Your task to perform on an android device: toggle notification dots Image 0: 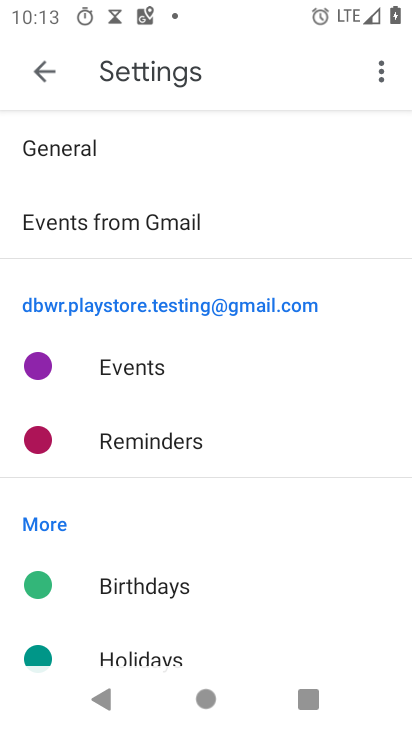
Step 0: press home button
Your task to perform on an android device: toggle notification dots Image 1: 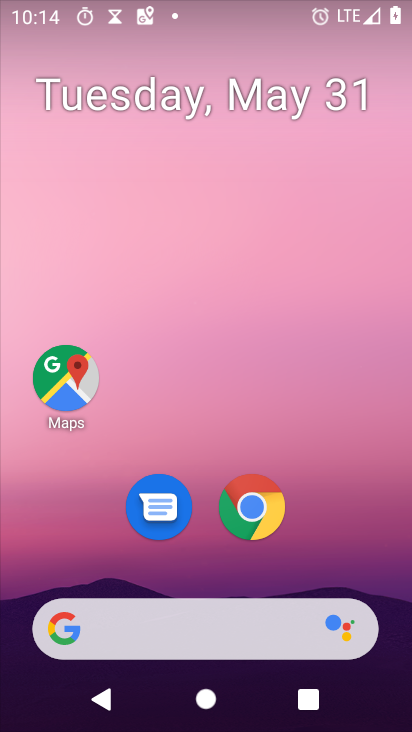
Step 1: click (249, 514)
Your task to perform on an android device: toggle notification dots Image 2: 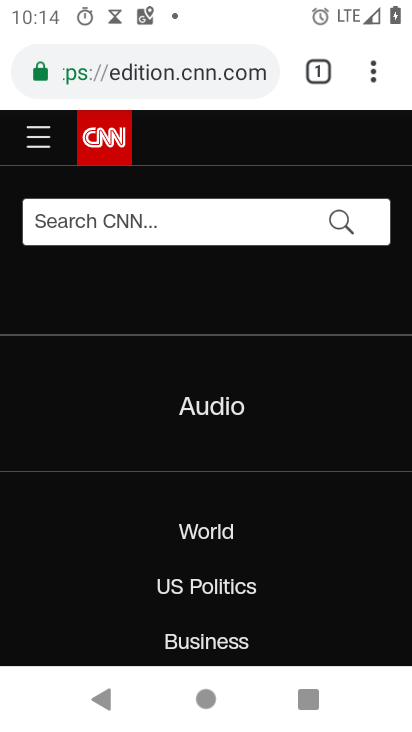
Step 2: press home button
Your task to perform on an android device: toggle notification dots Image 3: 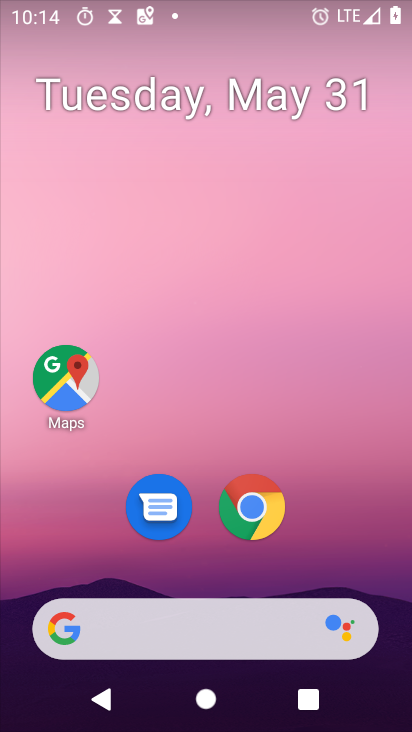
Step 3: drag from (54, 453) to (180, 161)
Your task to perform on an android device: toggle notification dots Image 4: 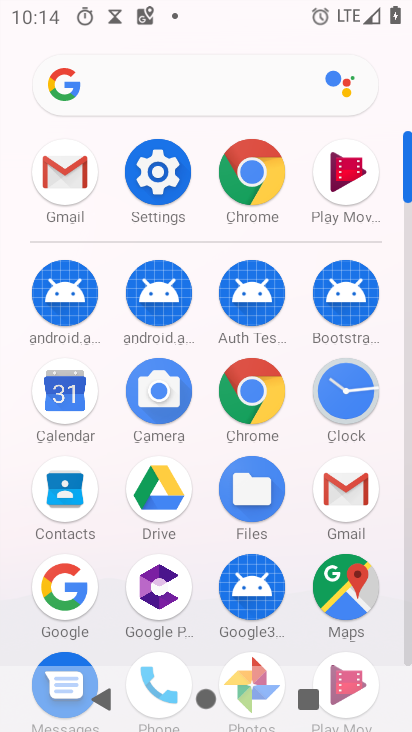
Step 4: click (142, 160)
Your task to perform on an android device: toggle notification dots Image 5: 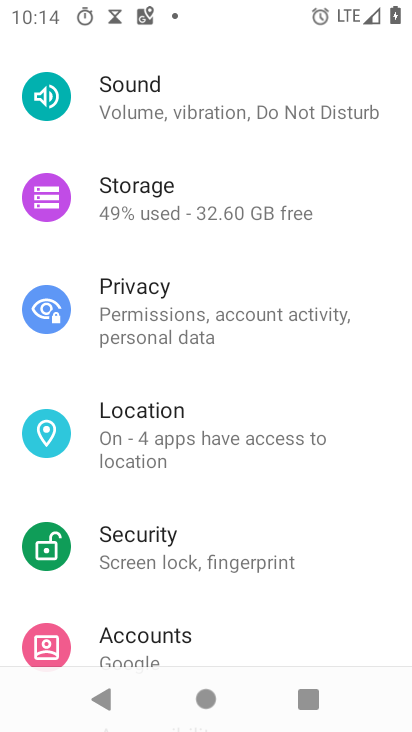
Step 5: drag from (51, 166) to (56, 615)
Your task to perform on an android device: toggle notification dots Image 6: 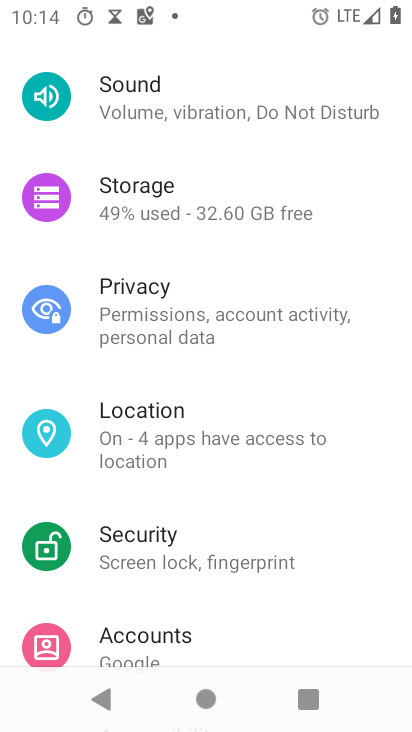
Step 6: drag from (306, 83) to (243, 514)
Your task to perform on an android device: toggle notification dots Image 7: 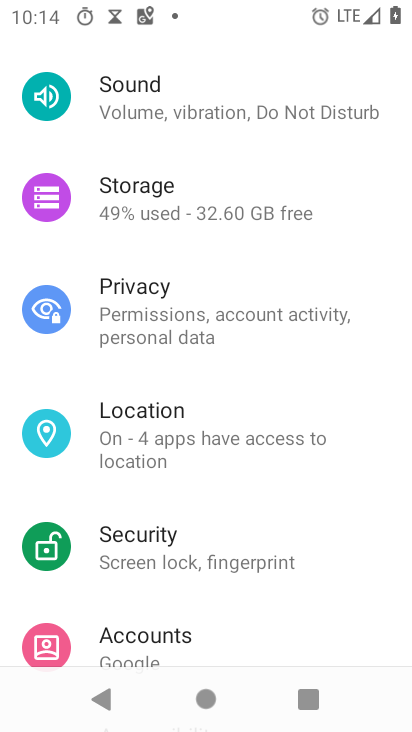
Step 7: drag from (229, 89) to (261, 419)
Your task to perform on an android device: toggle notification dots Image 8: 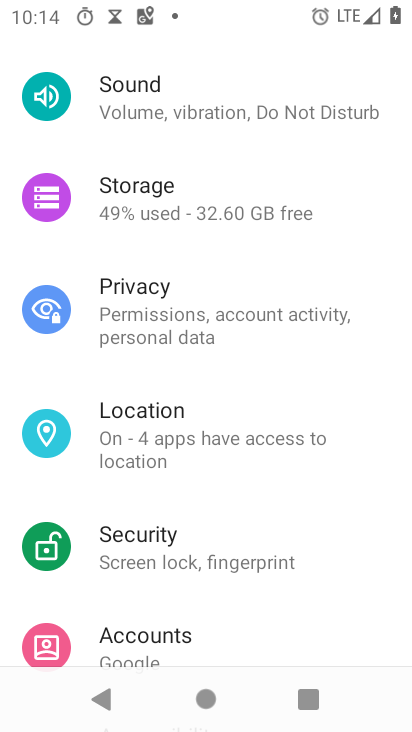
Step 8: drag from (53, 77) to (112, 418)
Your task to perform on an android device: toggle notification dots Image 9: 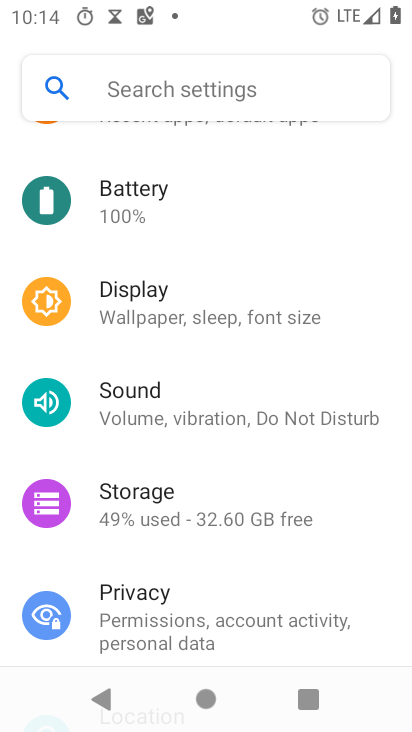
Step 9: drag from (178, 162) to (255, 485)
Your task to perform on an android device: toggle notification dots Image 10: 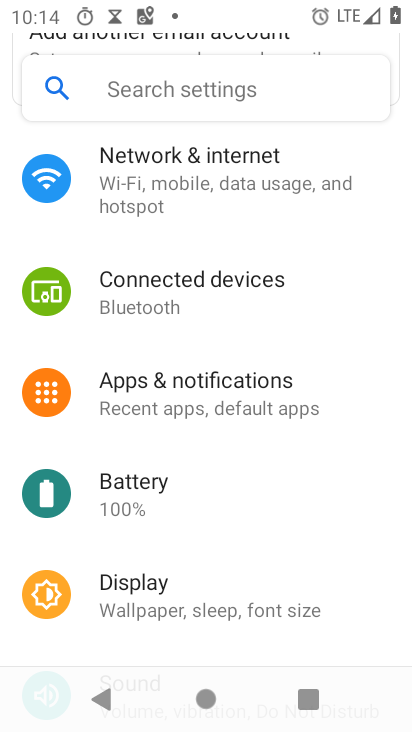
Step 10: click (189, 386)
Your task to perform on an android device: toggle notification dots Image 11: 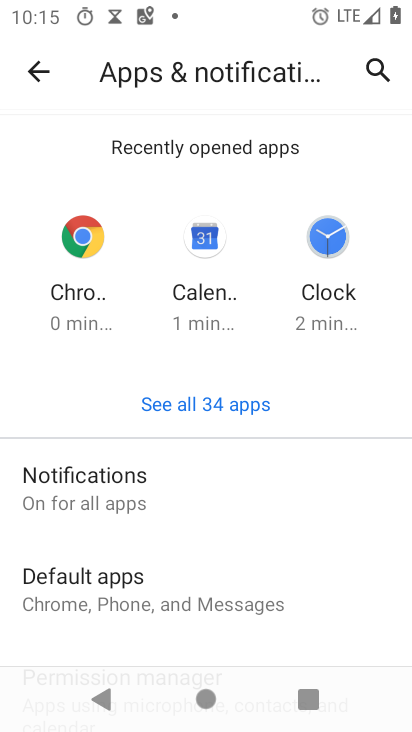
Step 11: click (80, 494)
Your task to perform on an android device: toggle notification dots Image 12: 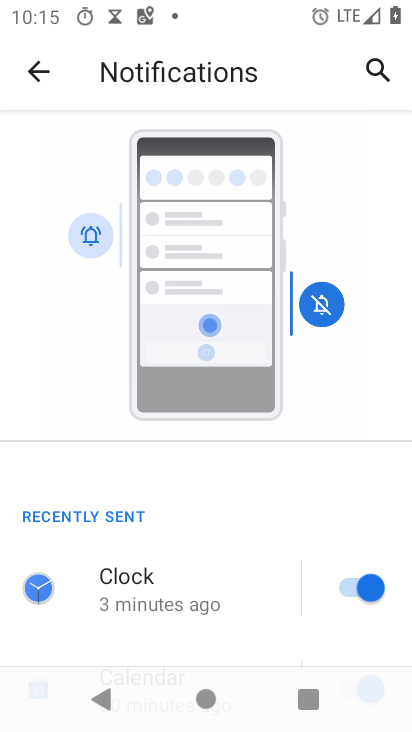
Step 12: drag from (24, 541) to (157, 74)
Your task to perform on an android device: toggle notification dots Image 13: 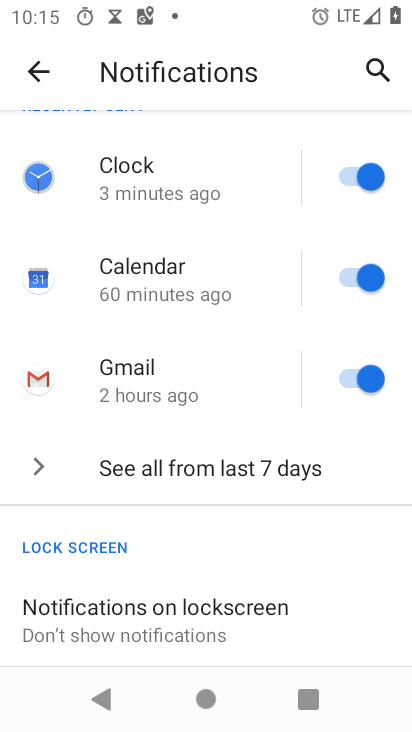
Step 13: drag from (18, 510) to (156, 150)
Your task to perform on an android device: toggle notification dots Image 14: 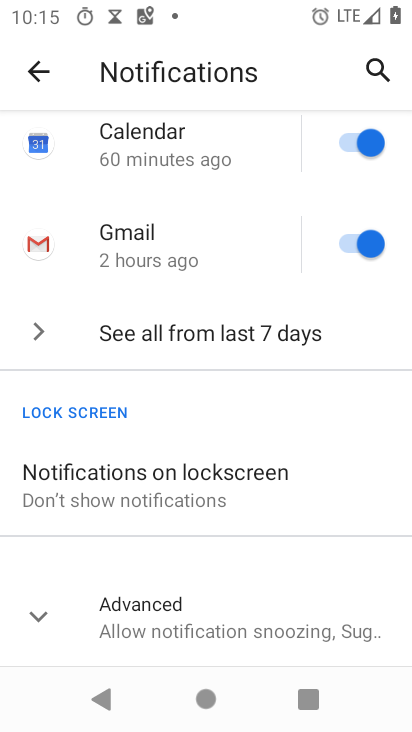
Step 14: click (113, 619)
Your task to perform on an android device: toggle notification dots Image 15: 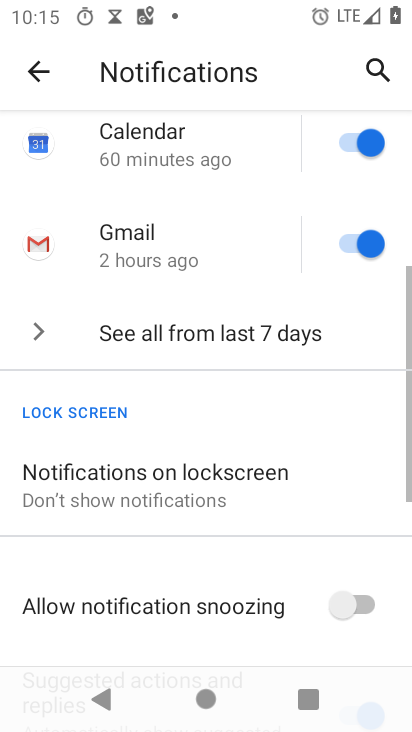
Step 15: drag from (53, 648) to (252, 239)
Your task to perform on an android device: toggle notification dots Image 16: 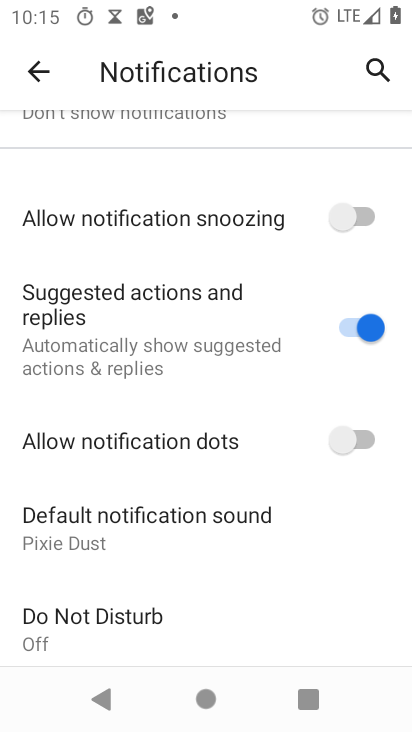
Step 16: click (339, 444)
Your task to perform on an android device: toggle notification dots Image 17: 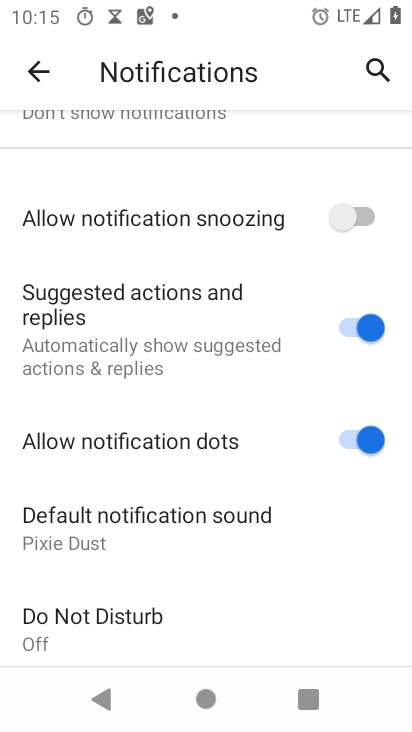
Step 17: task complete